Your task to perform on an android device: turn off improve location accuracy Image 0: 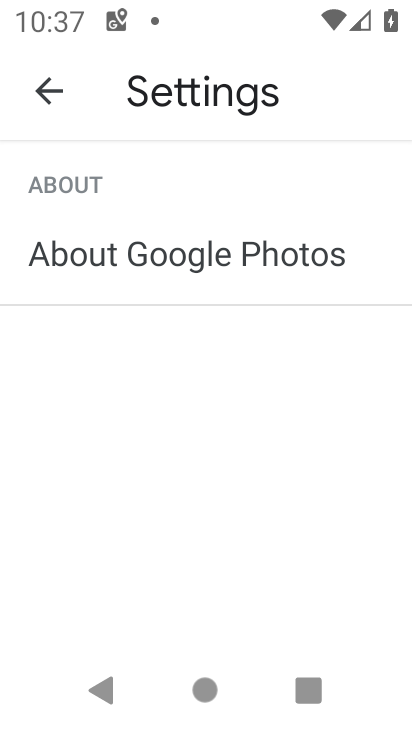
Step 0: press home button
Your task to perform on an android device: turn off improve location accuracy Image 1: 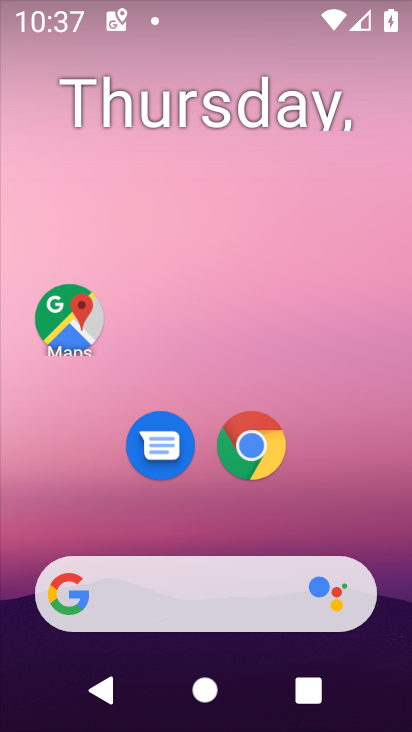
Step 1: drag from (389, 617) to (296, 42)
Your task to perform on an android device: turn off improve location accuracy Image 2: 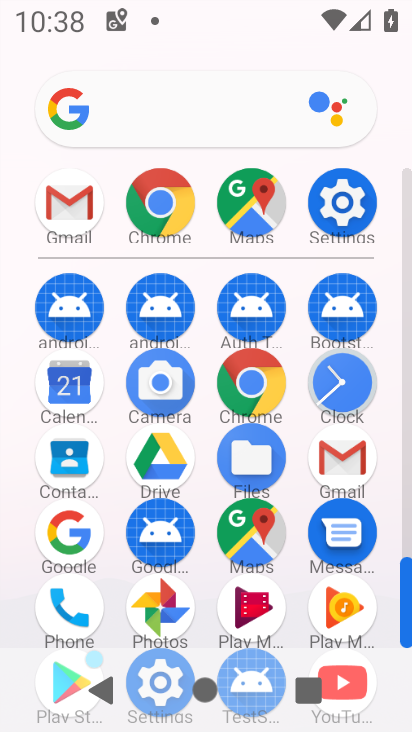
Step 2: click (336, 213)
Your task to perform on an android device: turn off improve location accuracy Image 3: 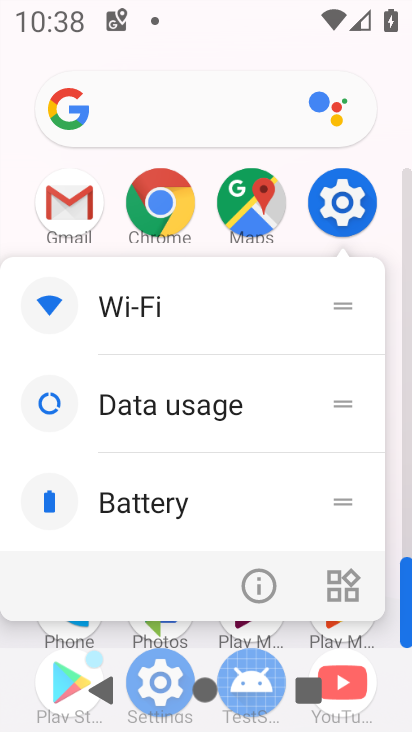
Step 3: click (336, 213)
Your task to perform on an android device: turn off improve location accuracy Image 4: 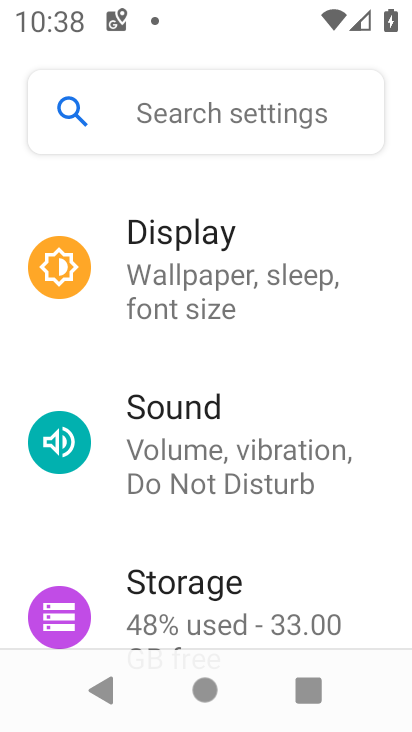
Step 4: drag from (180, 592) to (220, 101)
Your task to perform on an android device: turn off improve location accuracy Image 5: 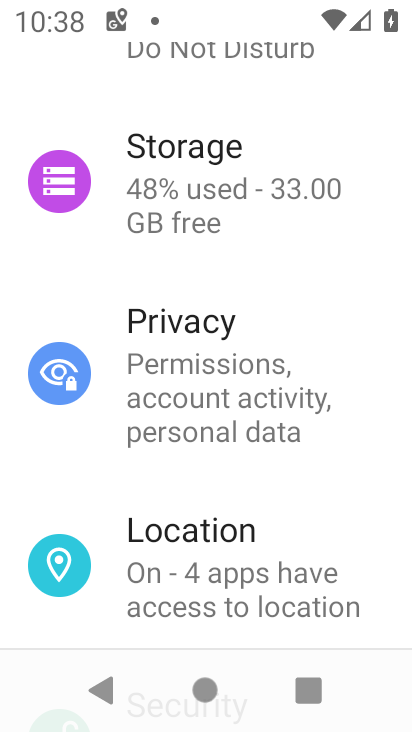
Step 5: click (214, 543)
Your task to perform on an android device: turn off improve location accuracy Image 6: 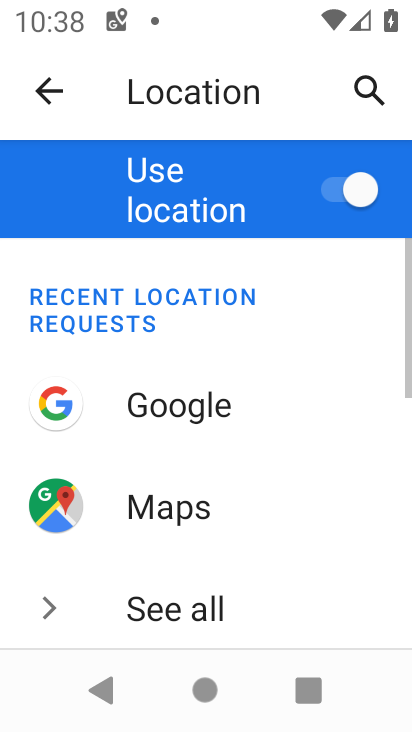
Step 6: drag from (214, 543) to (211, 104)
Your task to perform on an android device: turn off improve location accuracy Image 7: 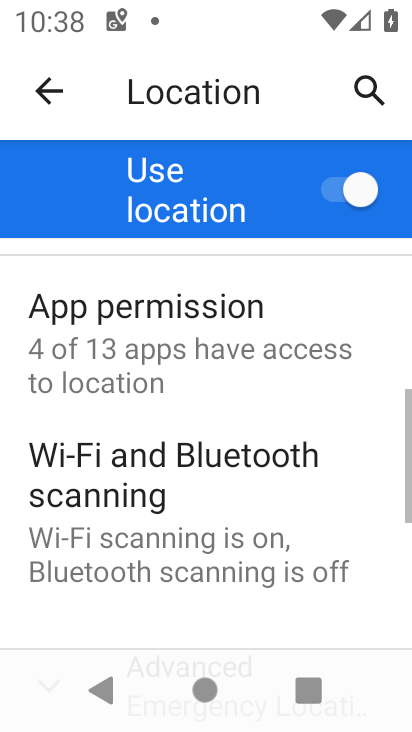
Step 7: drag from (203, 526) to (182, 214)
Your task to perform on an android device: turn off improve location accuracy Image 8: 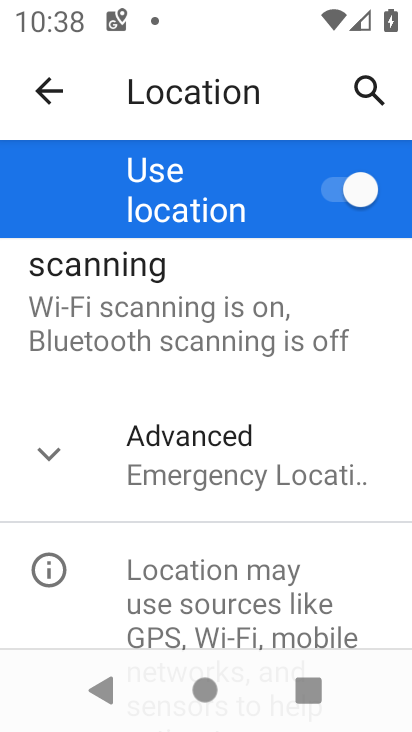
Step 8: click (71, 440)
Your task to perform on an android device: turn off improve location accuracy Image 9: 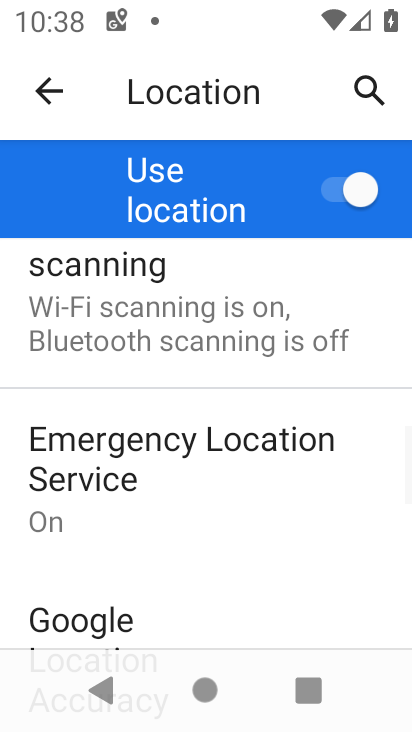
Step 9: drag from (179, 537) to (191, 206)
Your task to perform on an android device: turn off improve location accuracy Image 10: 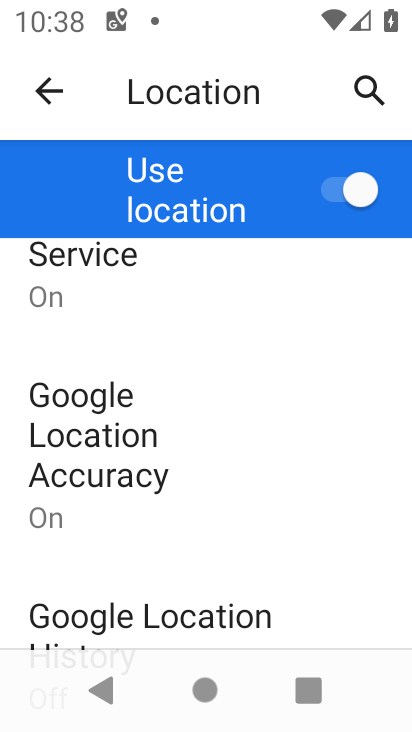
Step 10: click (180, 433)
Your task to perform on an android device: turn off improve location accuracy Image 11: 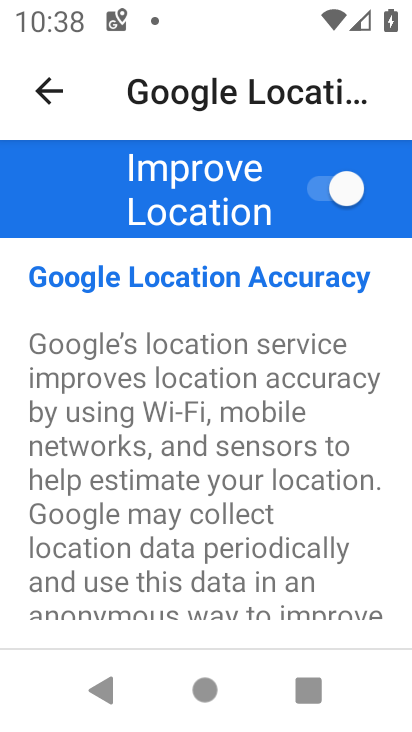
Step 11: click (340, 207)
Your task to perform on an android device: turn off improve location accuracy Image 12: 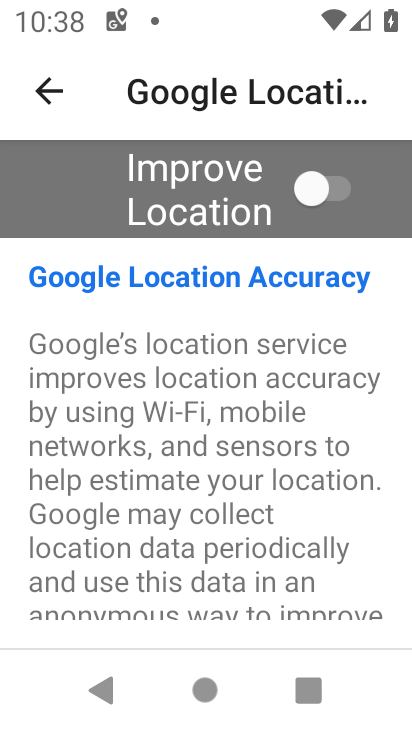
Step 12: task complete